Your task to perform on an android device: toggle airplane mode Image 0: 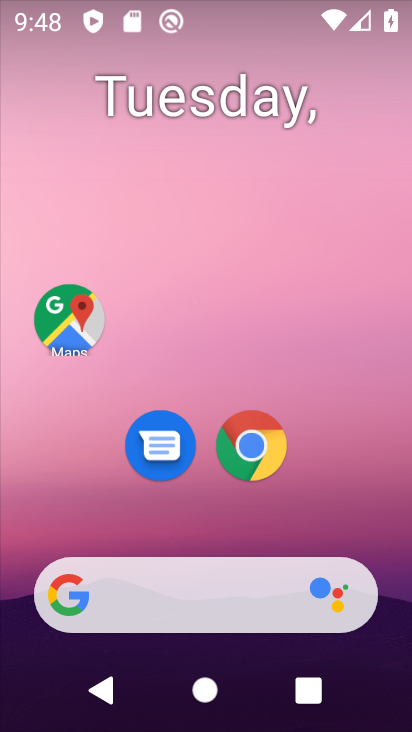
Step 0: drag from (379, 559) to (308, 80)
Your task to perform on an android device: toggle airplane mode Image 1: 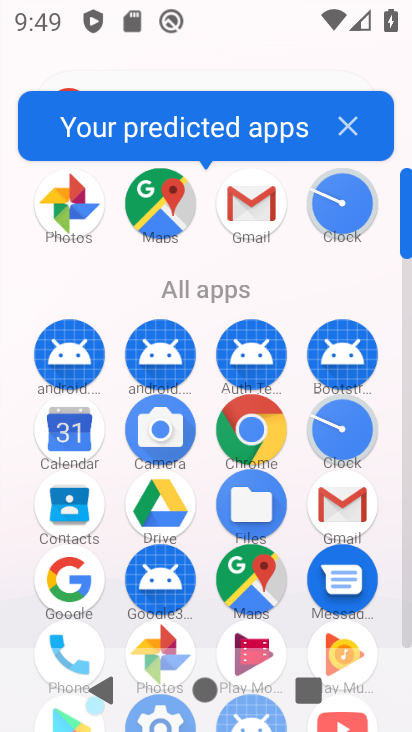
Step 1: click (403, 648)
Your task to perform on an android device: toggle airplane mode Image 2: 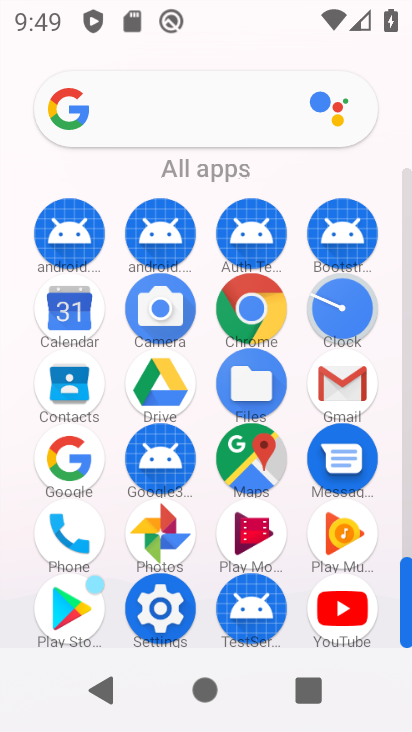
Step 2: click (174, 617)
Your task to perform on an android device: toggle airplane mode Image 3: 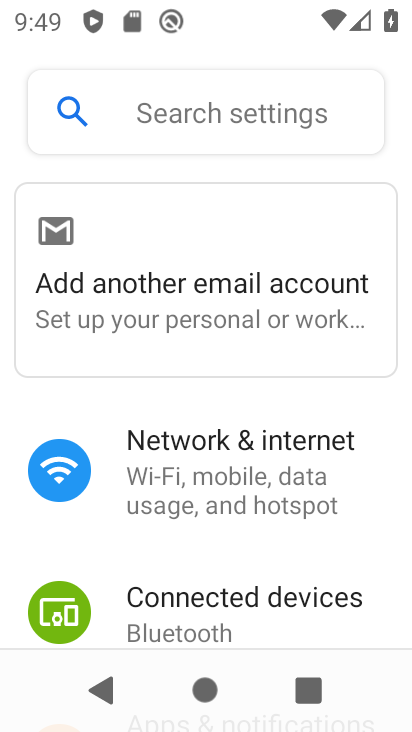
Step 3: click (270, 292)
Your task to perform on an android device: toggle airplane mode Image 4: 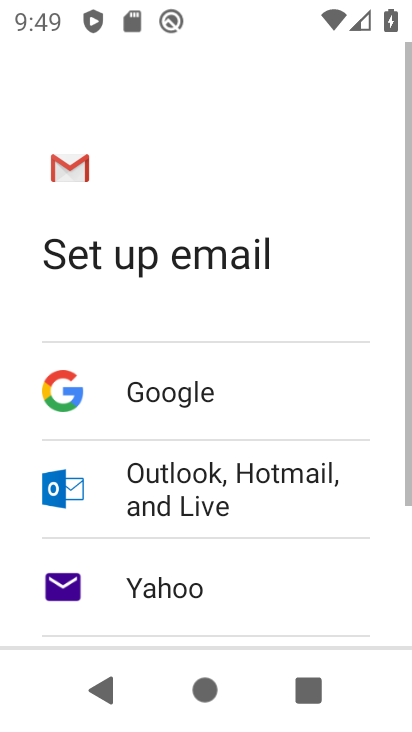
Step 4: press back button
Your task to perform on an android device: toggle airplane mode Image 5: 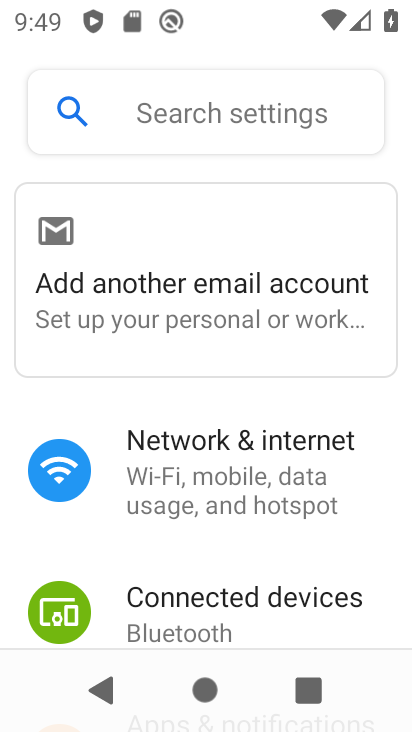
Step 5: click (317, 494)
Your task to perform on an android device: toggle airplane mode Image 6: 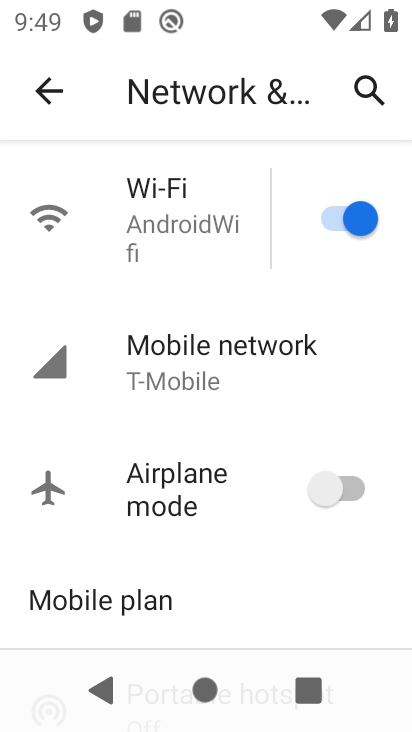
Step 6: click (342, 526)
Your task to perform on an android device: toggle airplane mode Image 7: 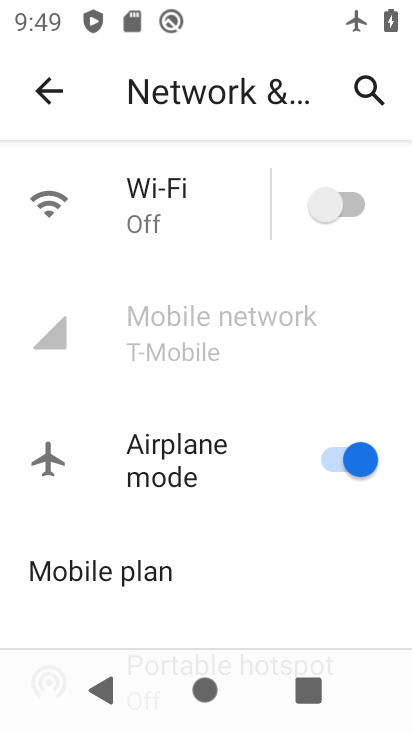
Step 7: task complete